Your task to perform on an android device: all mails in gmail Image 0: 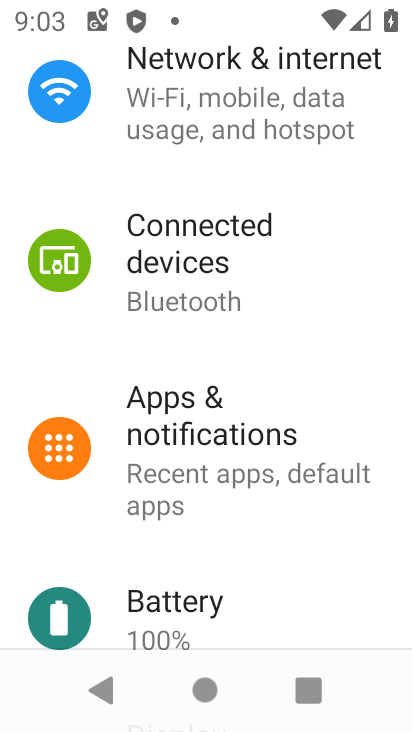
Step 0: press home button
Your task to perform on an android device: all mails in gmail Image 1: 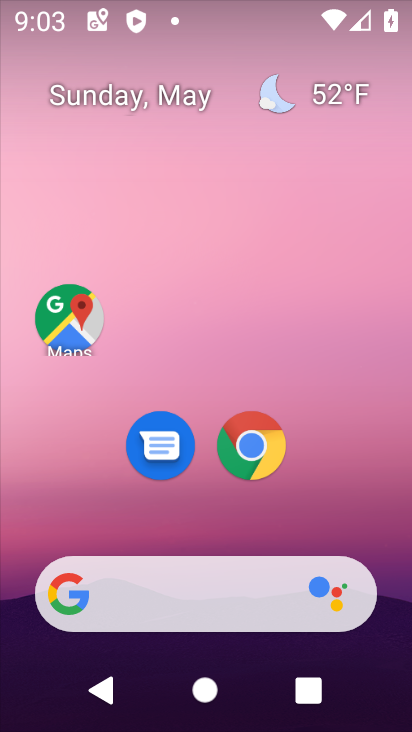
Step 1: drag from (343, 473) to (257, 24)
Your task to perform on an android device: all mails in gmail Image 2: 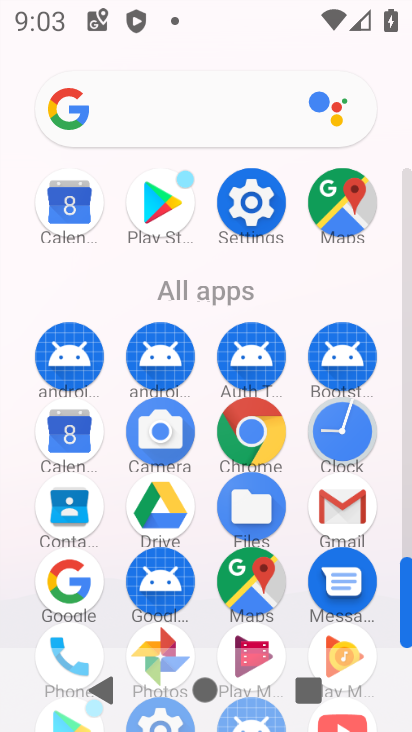
Step 2: click (335, 497)
Your task to perform on an android device: all mails in gmail Image 3: 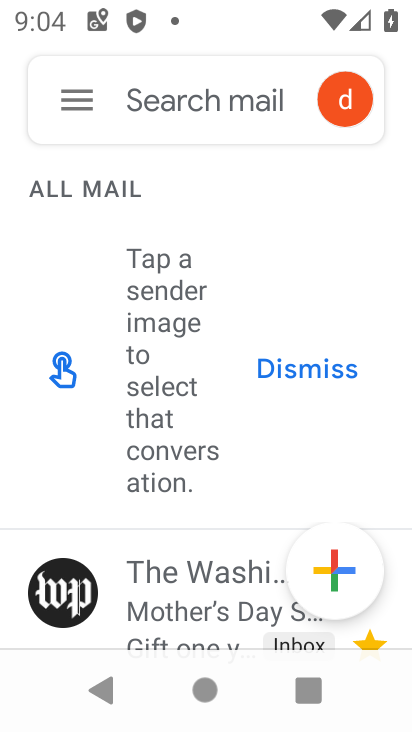
Step 3: click (77, 104)
Your task to perform on an android device: all mails in gmail Image 4: 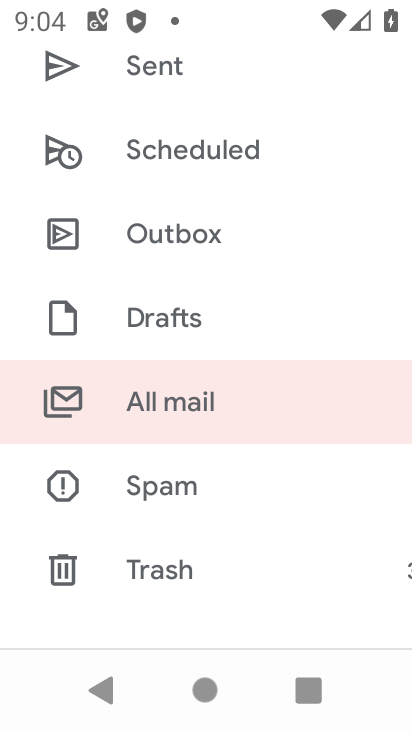
Step 4: click (155, 413)
Your task to perform on an android device: all mails in gmail Image 5: 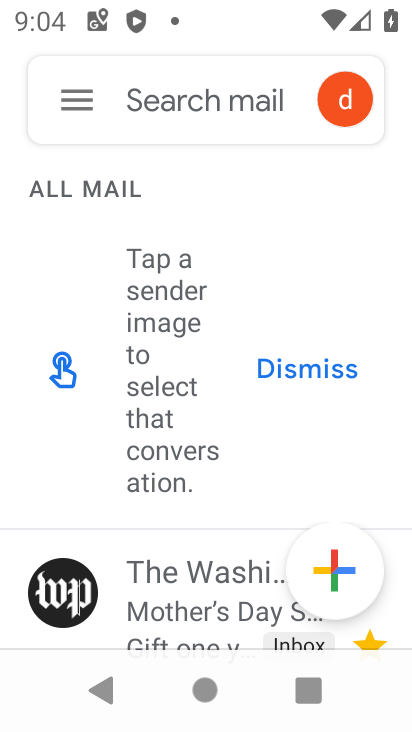
Step 5: task complete